Your task to perform on an android device: turn on javascript in the chrome app Image 0: 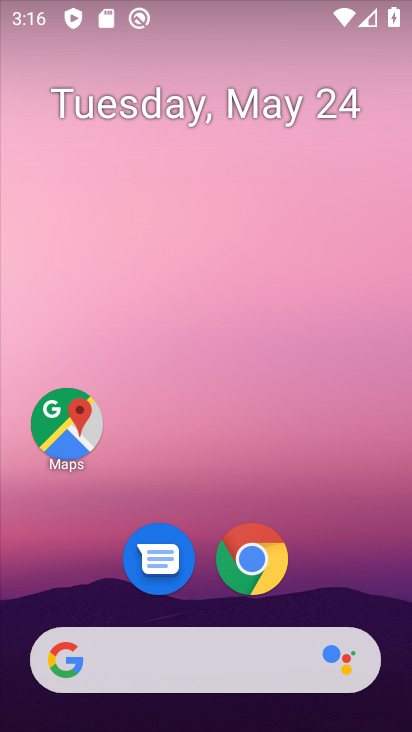
Step 0: click (252, 558)
Your task to perform on an android device: turn on javascript in the chrome app Image 1: 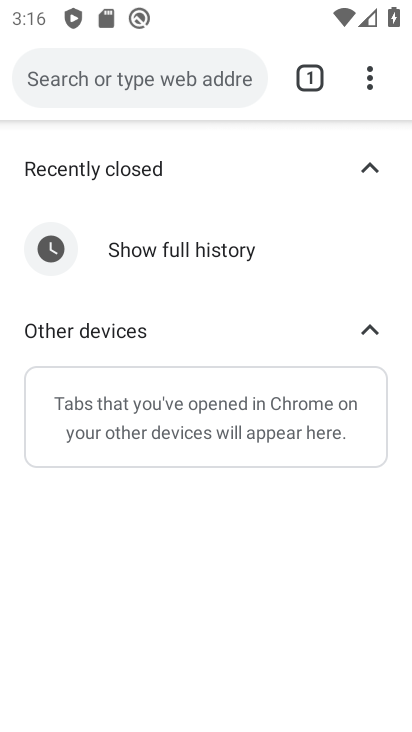
Step 1: click (372, 83)
Your task to perform on an android device: turn on javascript in the chrome app Image 2: 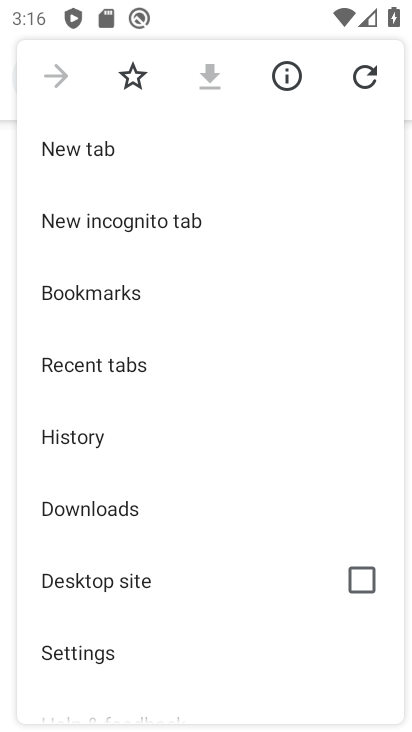
Step 2: click (84, 658)
Your task to perform on an android device: turn on javascript in the chrome app Image 3: 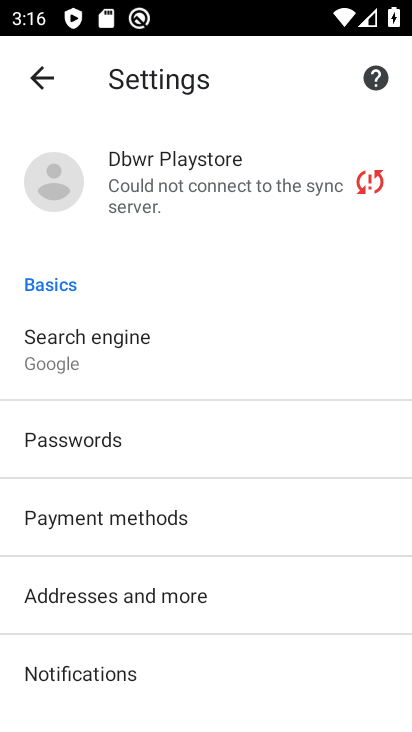
Step 3: drag from (116, 572) to (227, 440)
Your task to perform on an android device: turn on javascript in the chrome app Image 4: 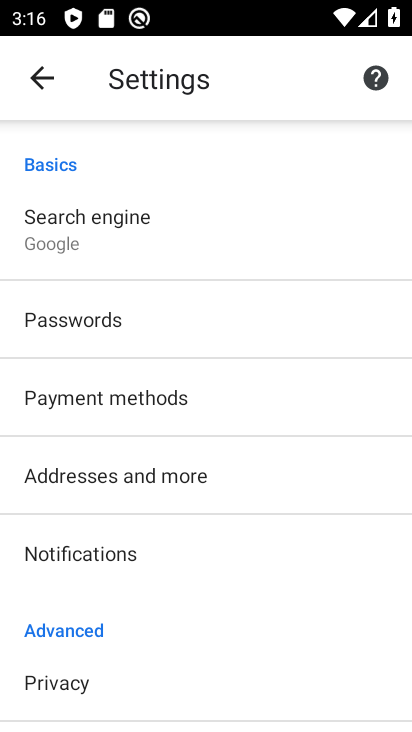
Step 4: drag from (141, 587) to (227, 475)
Your task to perform on an android device: turn on javascript in the chrome app Image 5: 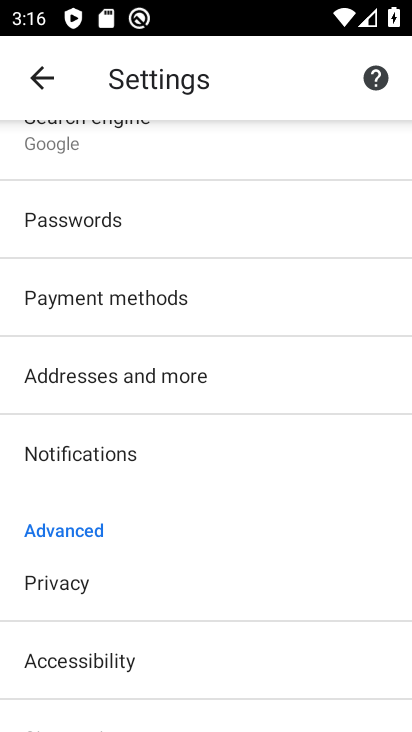
Step 5: drag from (138, 594) to (224, 493)
Your task to perform on an android device: turn on javascript in the chrome app Image 6: 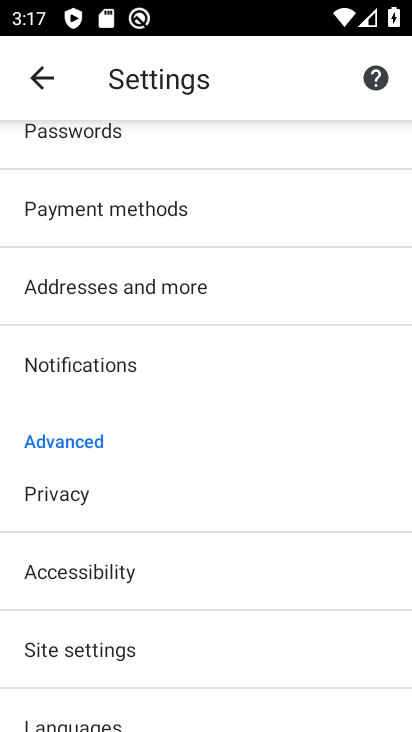
Step 6: click (109, 647)
Your task to perform on an android device: turn on javascript in the chrome app Image 7: 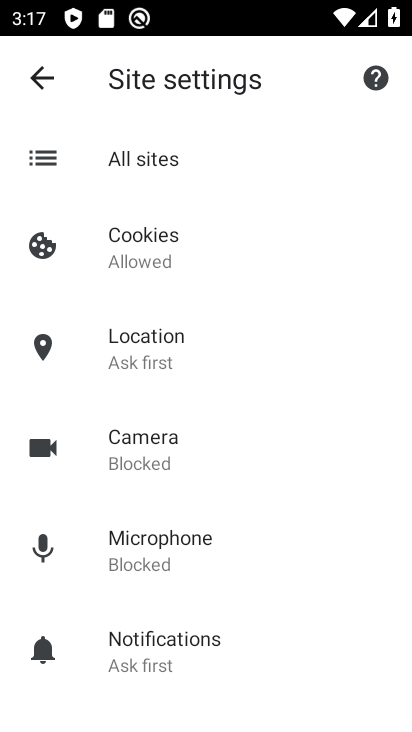
Step 7: drag from (175, 594) to (217, 480)
Your task to perform on an android device: turn on javascript in the chrome app Image 8: 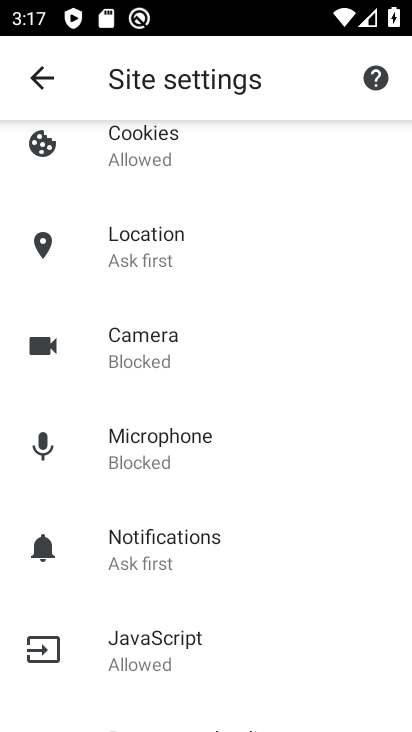
Step 8: click (165, 645)
Your task to perform on an android device: turn on javascript in the chrome app Image 9: 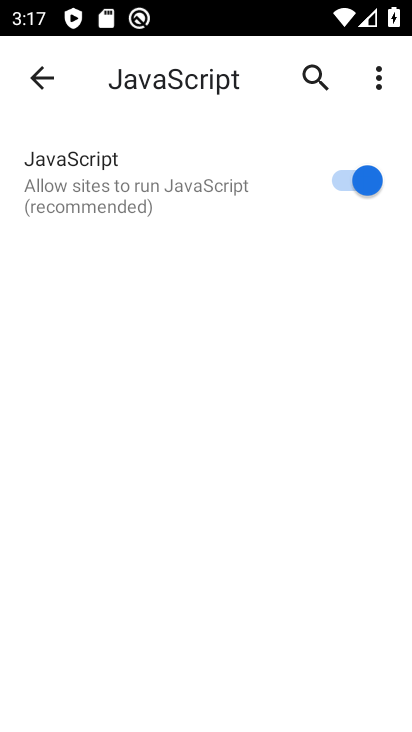
Step 9: task complete